Your task to perform on an android device: Go to Wikipedia Image 0: 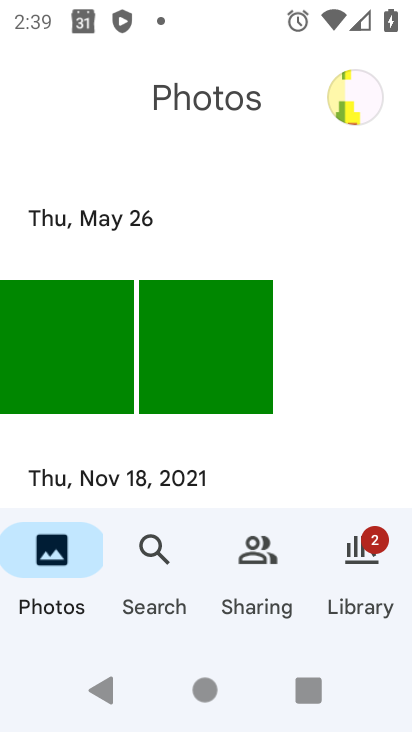
Step 0: press home button
Your task to perform on an android device: Go to Wikipedia Image 1: 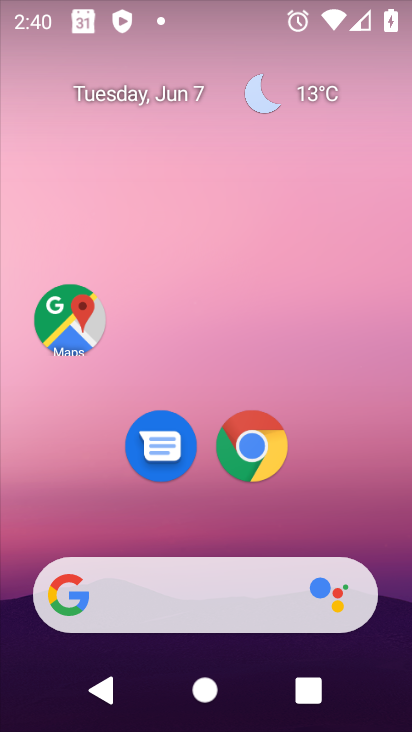
Step 1: click (253, 444)
Your task to perform on an android device: Go to Wikipedia Image 2: 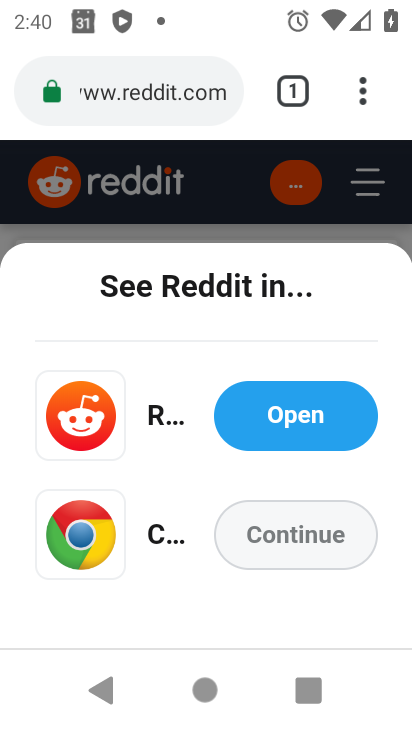
Step 2: click (201, 68)
Your task to perform on an android device: Go to Wikipedia Image 3: 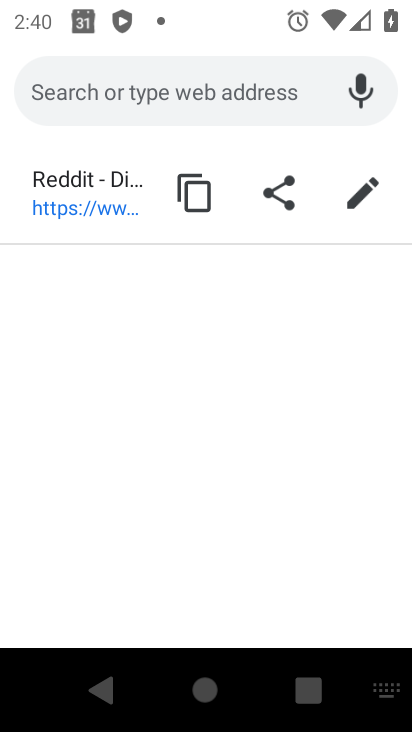
Step 3: type "wikipedia"
Your task to perform on an android device: Go to Wikipedia Image 4: 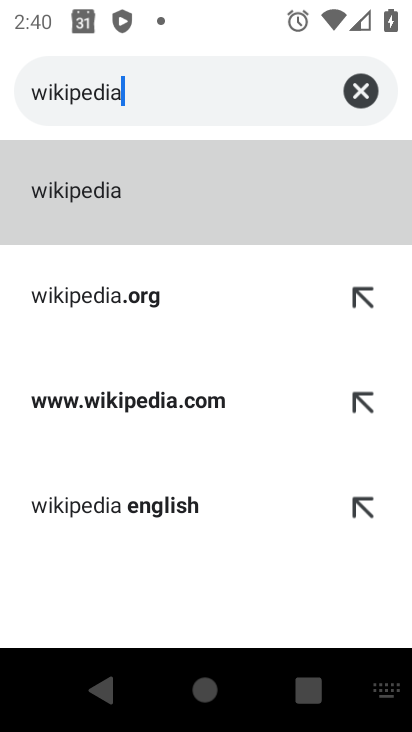
Step 4: click (87, 190)
Your task to perform on an android device: Go to Wikipedia Image 5: 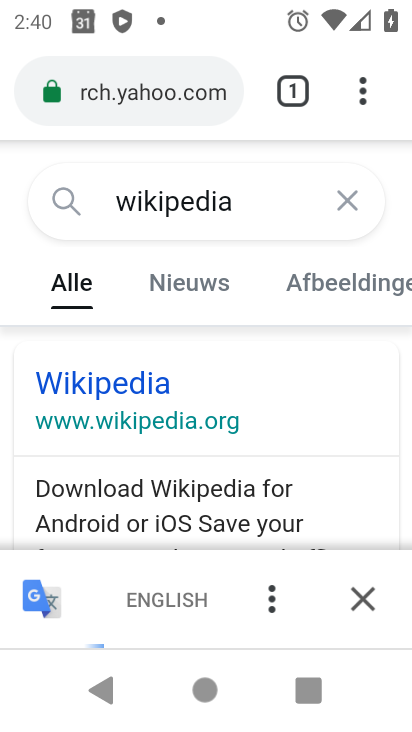
Step 5: click (91, 390)
Your task to perform on an android device: Go to Wikipedia Image 6: 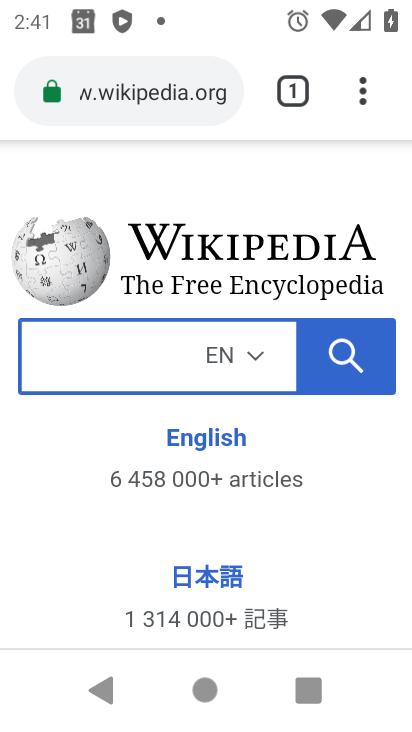
Step 6: task complete